Your task to perform on an android device: Search for pizza restaurants on Maps Image 0: 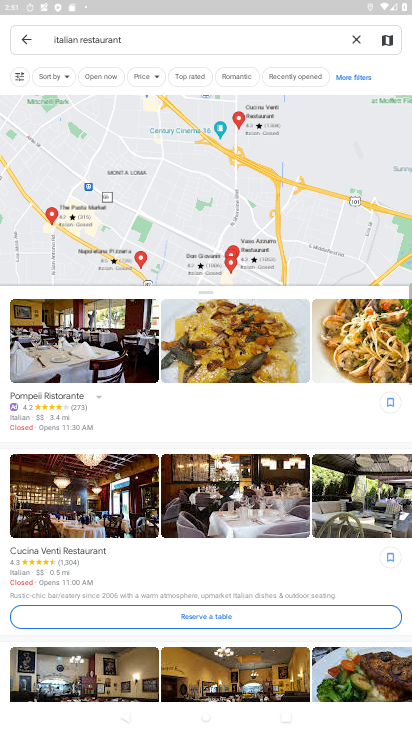
Step 0: press home button
Your task to perform on an android device: Search for pizza restaurants on Maps Image 1: 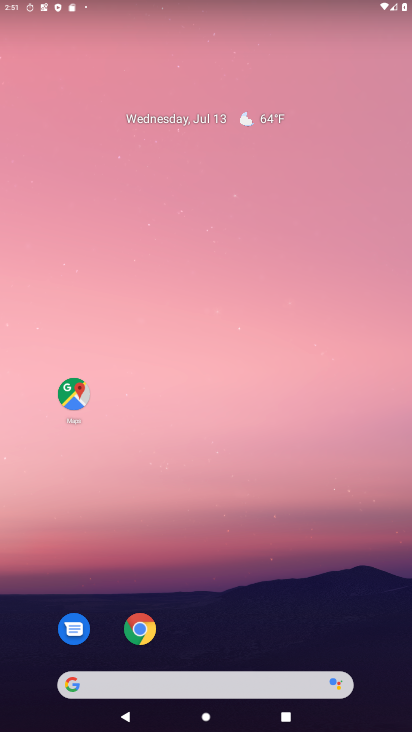
Step 1: drag from (186, 685) to (208, 9)
Your task to perform on an android device: Search for pizza restaurants on Maps Image 2: 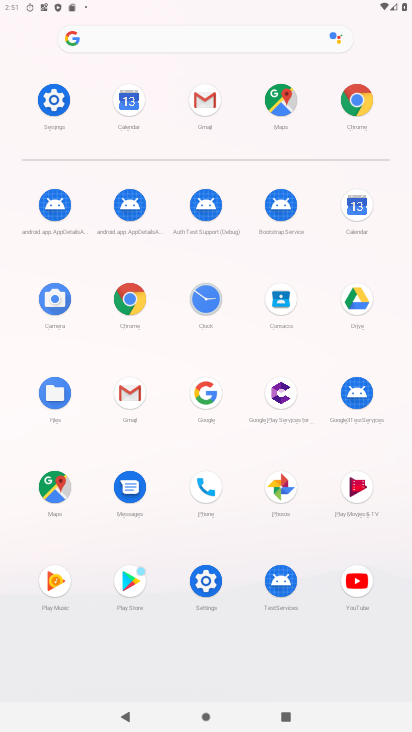
Step 2: click (53, 484)
Your task to perform on an android device: Search for pizza restaurants on Maps Image 3: 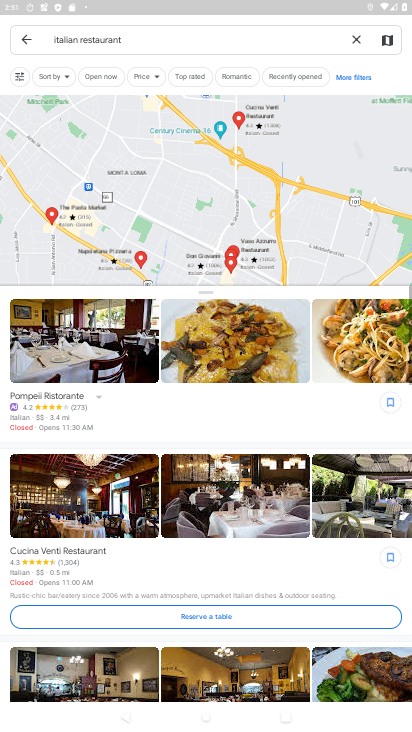
Step 3: click (352, 35)
Your task to perform on an android device: Search for pizza restaurants on Maps Image 4: 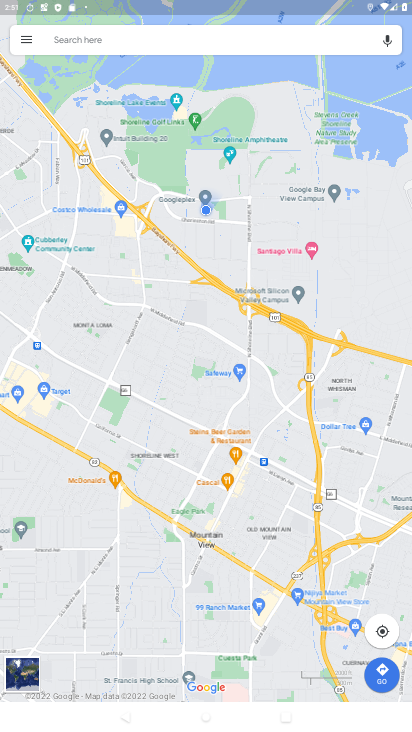
Step 4: click (144, 33)
Your task to perform on an android device: Search for pizza restaurants on Maps Image 5: 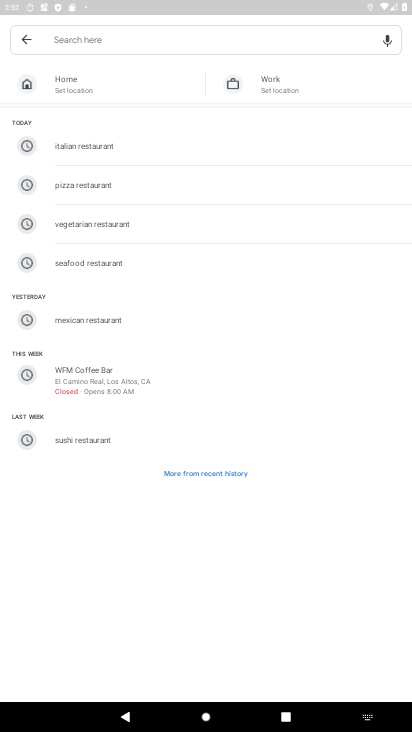
Step 5: click (99, 185)
Your task to perform on an android device: Search for pizza restaurants on Maps Image 6: 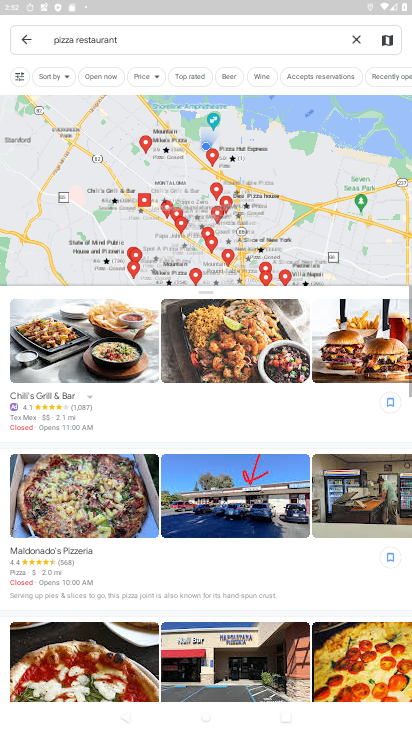
Step 6: task complete